Your task to perform on an android device: turn on sleep mode Image 0: 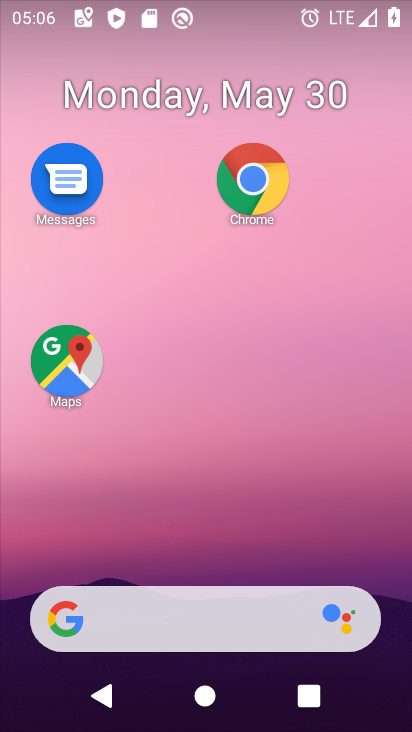
Step 0: drag from (220, 563) to (221, 2)
Your task to perform on an android device: turn on sleep mode Image 1: 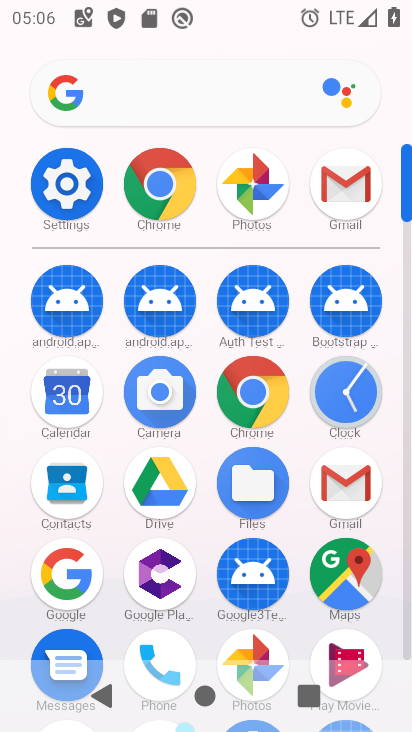
Step 1: click (50, 175)
Your task to perform on an android device: turn on sleep mode Image 2: 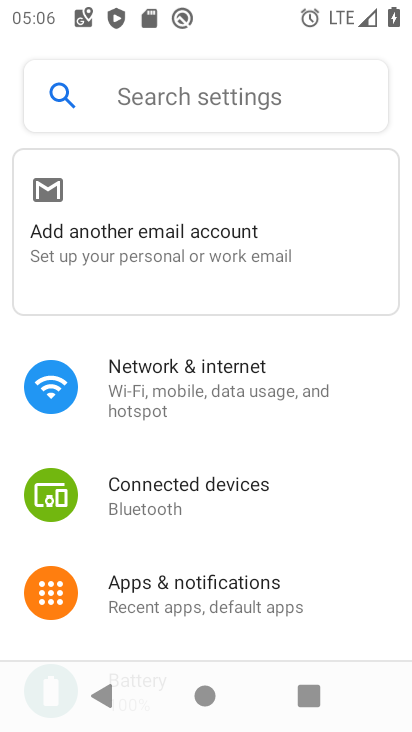
Step 2: click (145, 404)
Your task to perform on an android device: turn on sleep mode Image 3: 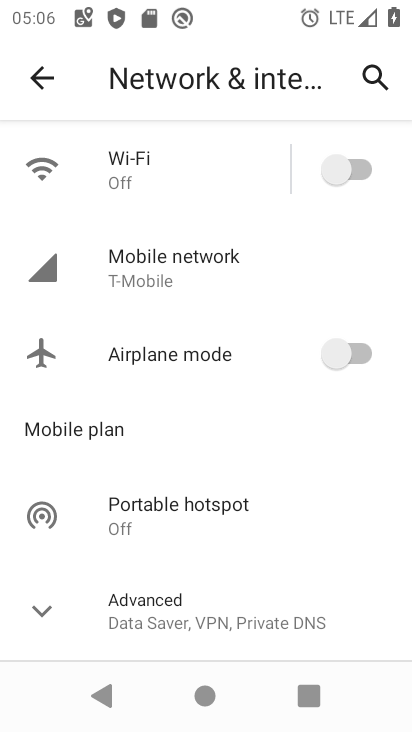
Step 3: task complete